Your task to perform on an android device: toggle notification dots Image 0: 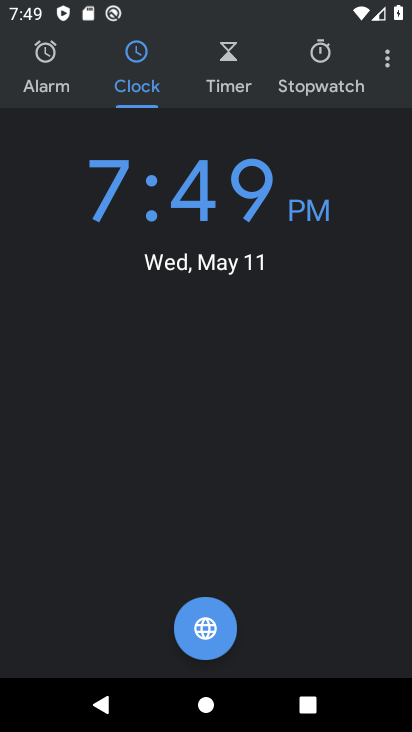
Step 0: press home button
Your task to perform on an android device: toggle notification dots Image 1: 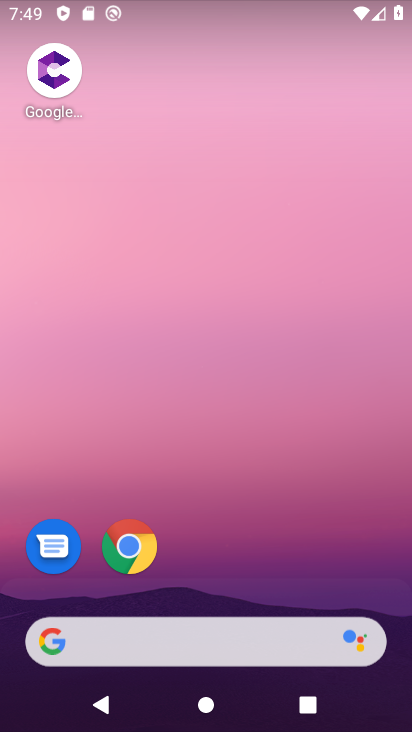
Step 1: drag from (156, 644) to (96, 17)
Your task to perform on an android device: toggle notification dots Image 2: 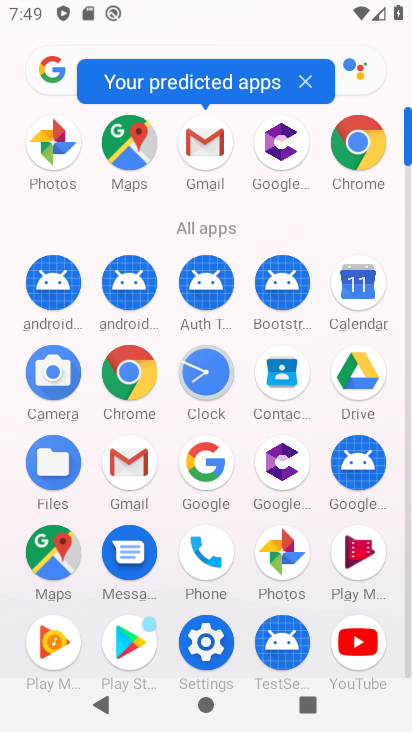
Step 2: click (222, 649)
Your task to perform on an android device: toggle notification dots Image 3: 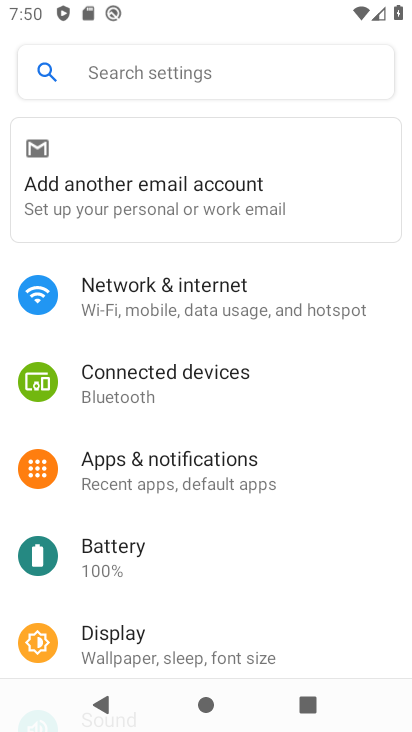
Step 3: click (183, 451)
Your task to perform on an android device: toggle notification dots Image 4: 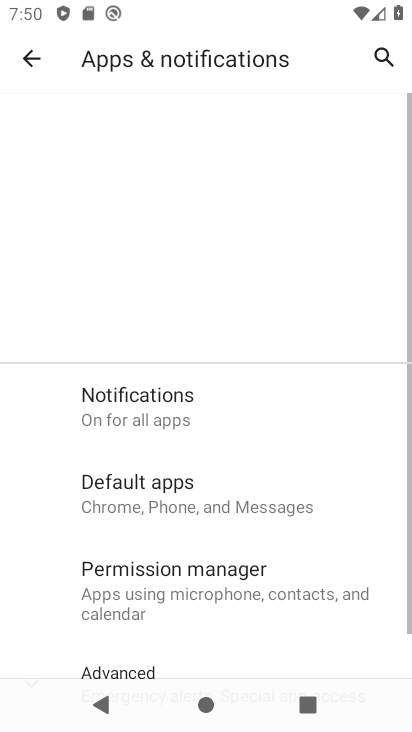
Step 4: drag from (217, 575) to (256, 141)
Your task to perform on an android device: toggle notification dots Image 5: 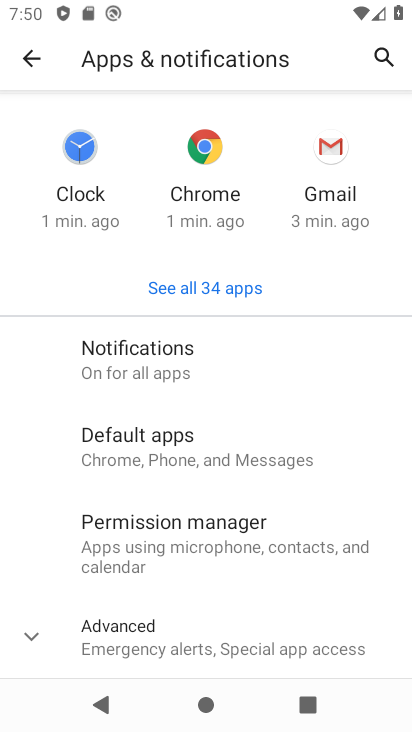
Step 5: click (177, 365)
Your task to perform on an android device: toggle notification dots Image 6: 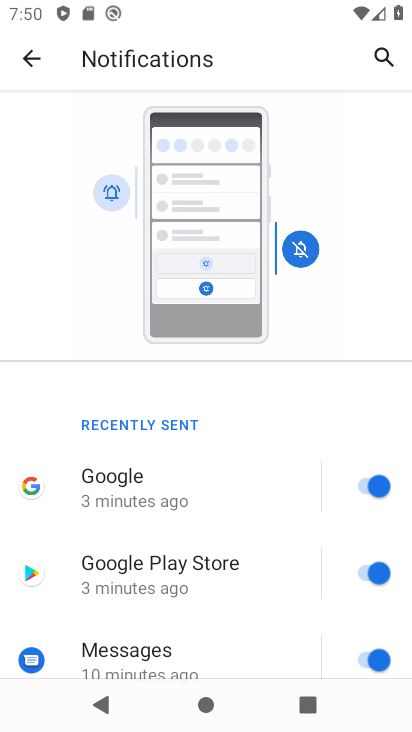
Step 6: drag from (154, 648) to (141, 152)
Your task to perform on an android device: toggle notification dots Image 7: 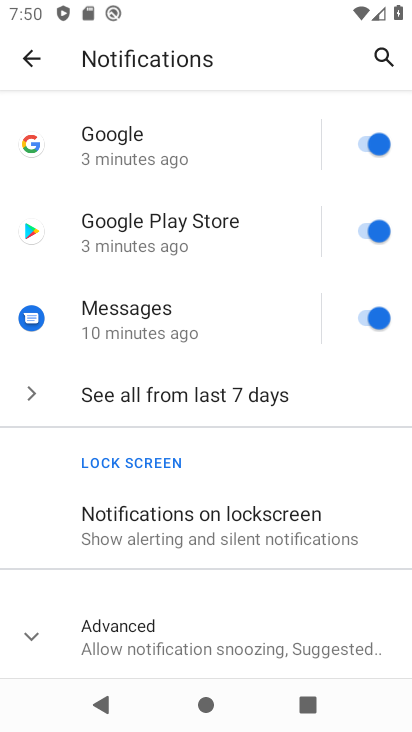
Step 7: click (143, 624)
Your task to perform on an android device: toggle notification dots Image 8: 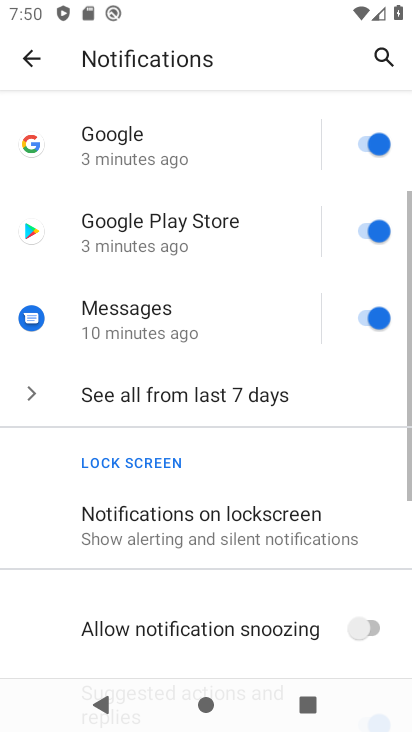
Step 8: drag from (125, 607) to (87, 148)
Your task to perform on an android device: toggle notification dots Image 9: 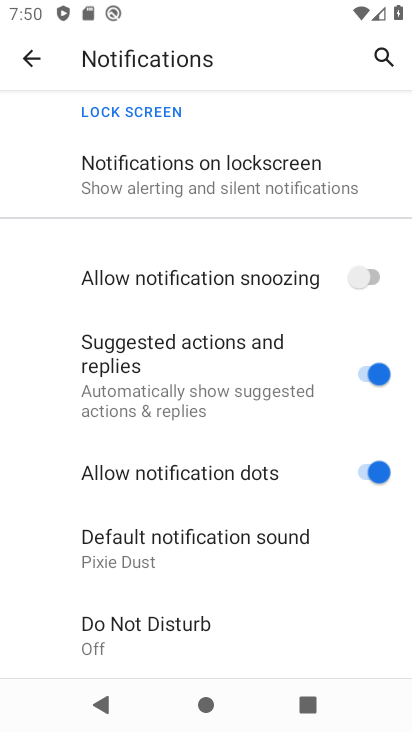
Step 9: click (374, 461)
Your task to perform on an android device: toggle notification dots Image 10: 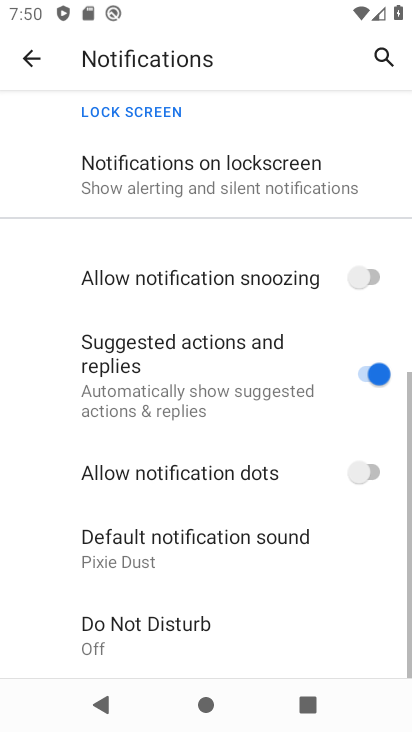
Step 10: task complete